Your task to perform on an android device: Open calendar and show me the fourth week of next month Image 0: 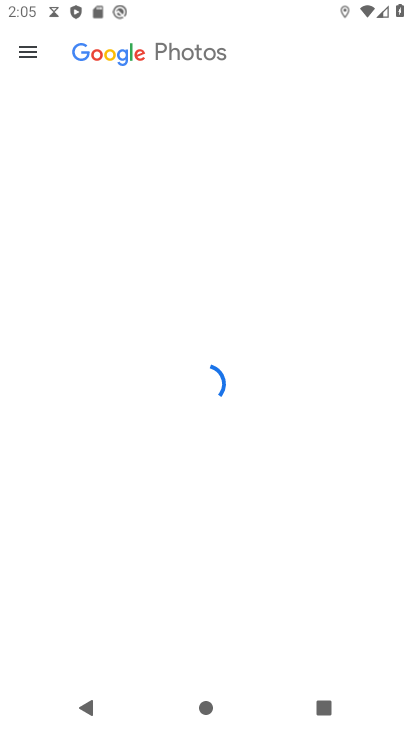
Step 0: press home button
Your task to perform on an android device: Open calendar and show me the fourth week of next month Image 1: 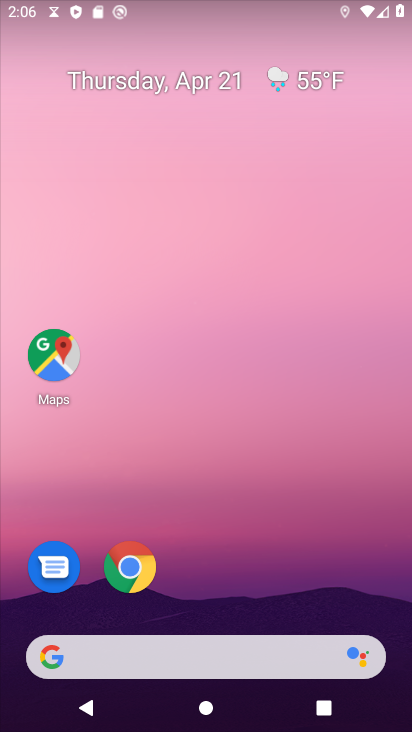
Step 1: drag from (134, 645) to (264, 169)
Your task to perform on an android device: Open calendar and show me the fourth week of next month Image 2: 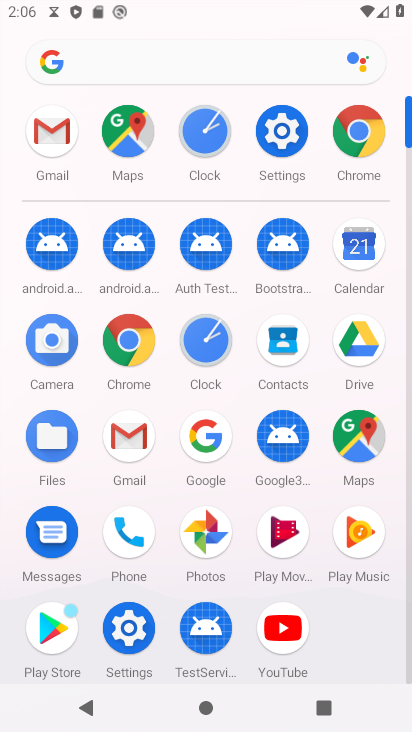
Step 2: click (357, 254)
Your task to perform on an android device: Open calendar and show me the fourth week of next month Image 3: 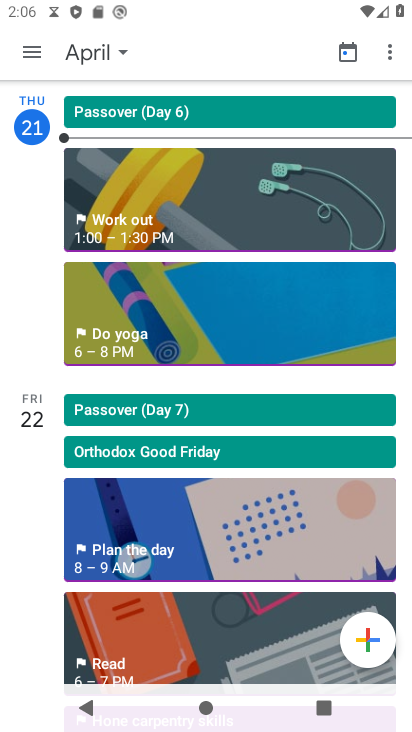
Step 3: click (96, 50)
Your task to perform on an android device: Open calendar and show me the fourth week of next month Image 4: 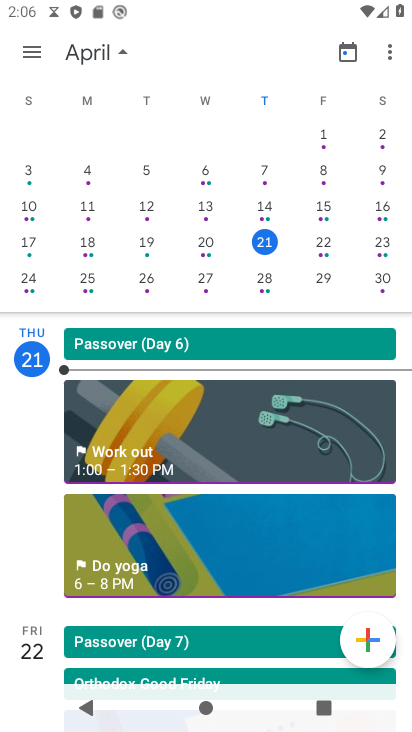
Step 4: drag from (378, 252) to (3, 276)
Your task to perform on an android device: Open calendar and show me the fourth week of next month Image 5: 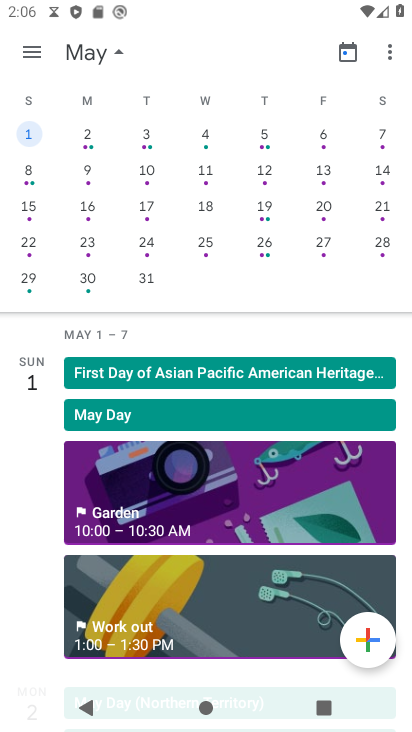
Step 5: click (28, 242)
Your task to perform on an android device: Open calendar and show me the fourth week of next month Image 6: 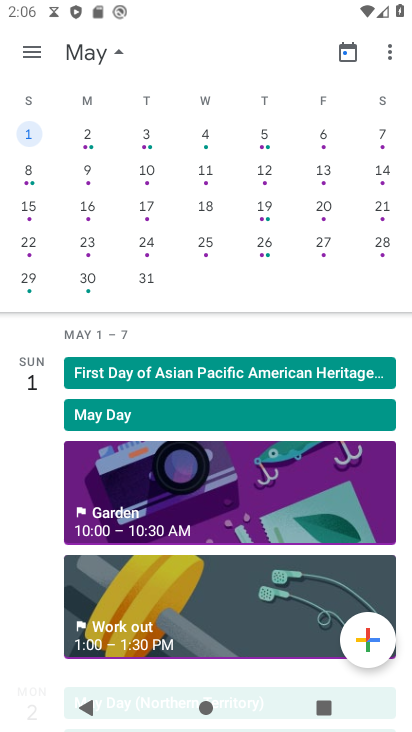
Step 6: click (33, 243)
Your task to perform on an android device: Open calendar and show me the fourth week of next month Image 7: 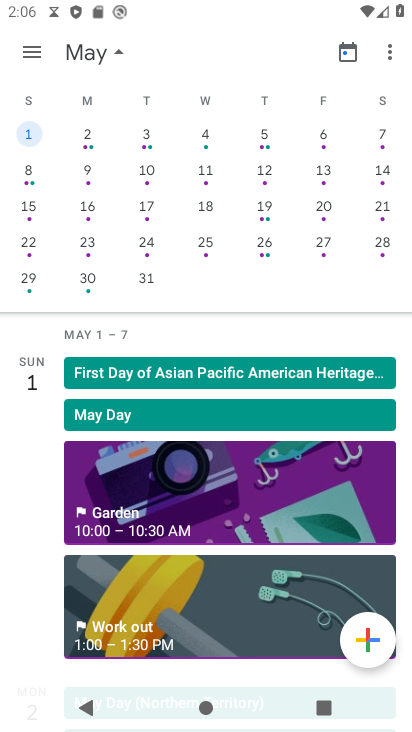
Step 7: click (28, 243)
Your task to perform on an android device: Open calendar and show me the fourth week of next month Image 8: 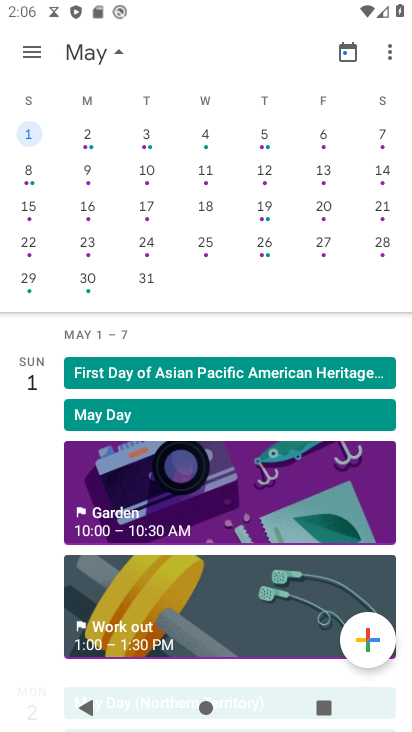
Step 8: click (31, 245)
Your task to perform on an android device: Open calendar and show me the fourth week of next month Image 9: 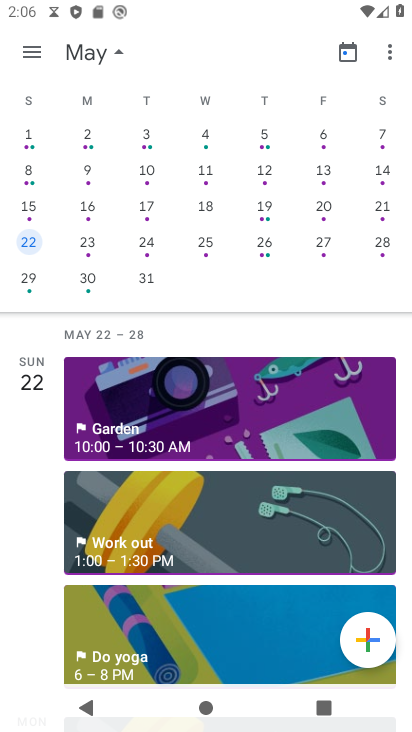
Step 9: click (31, 54)
Your task to perform on an android device: Open calendar and show me the fourth week of next month Image 10: 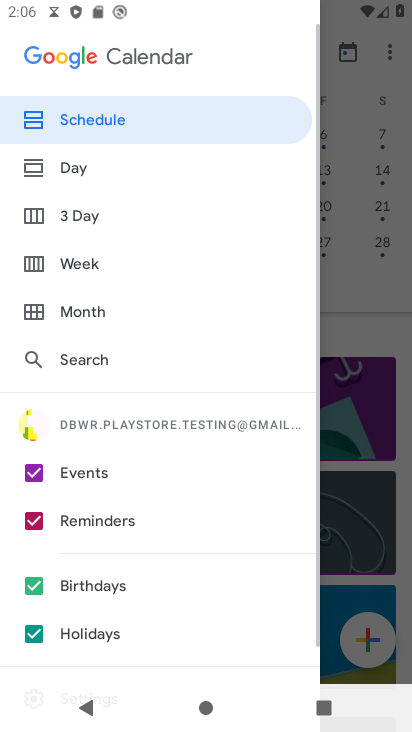
Step 10: click (63, 261)
Your task to perform on an android device: Open calendar and show me the fourth week of next month Image 11: 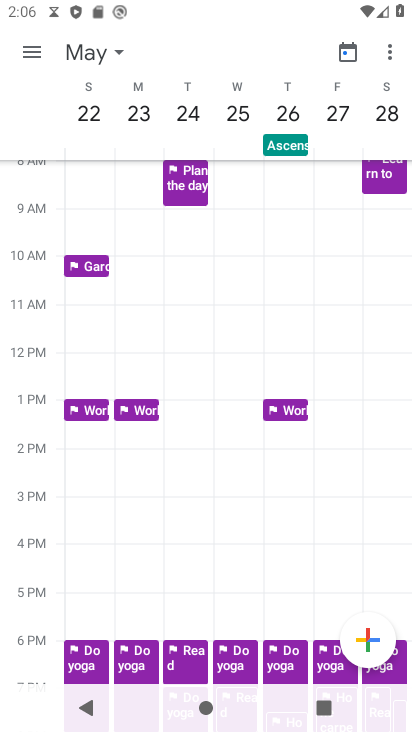
Step 11: task complete